Your task to perform on an android device: What's the news in Puerto Rico? Image 0: 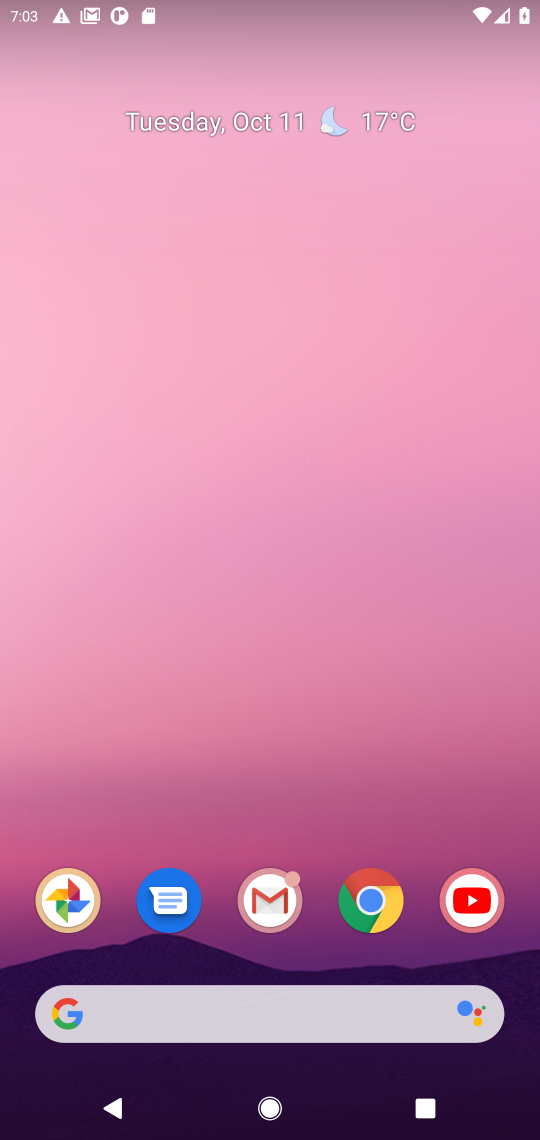
Step 0: click (359, 895)
Your task to perform on an android device: What's the news in Puerto Rico? Image 1: 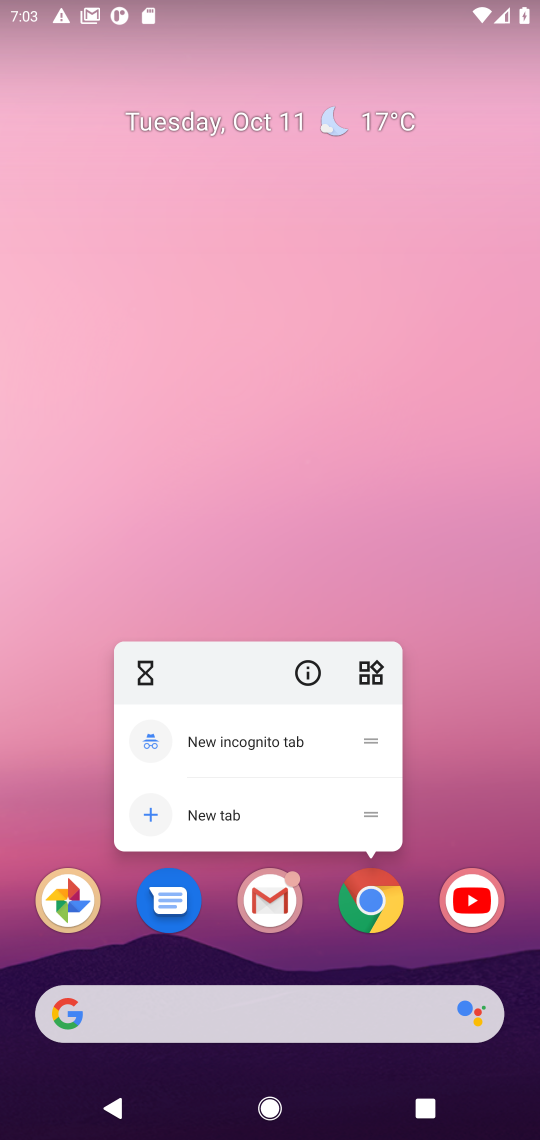
Step 1: click (371, 900)
Your task to perform on an android device: What's the news in Puerto Rico? Image 2: 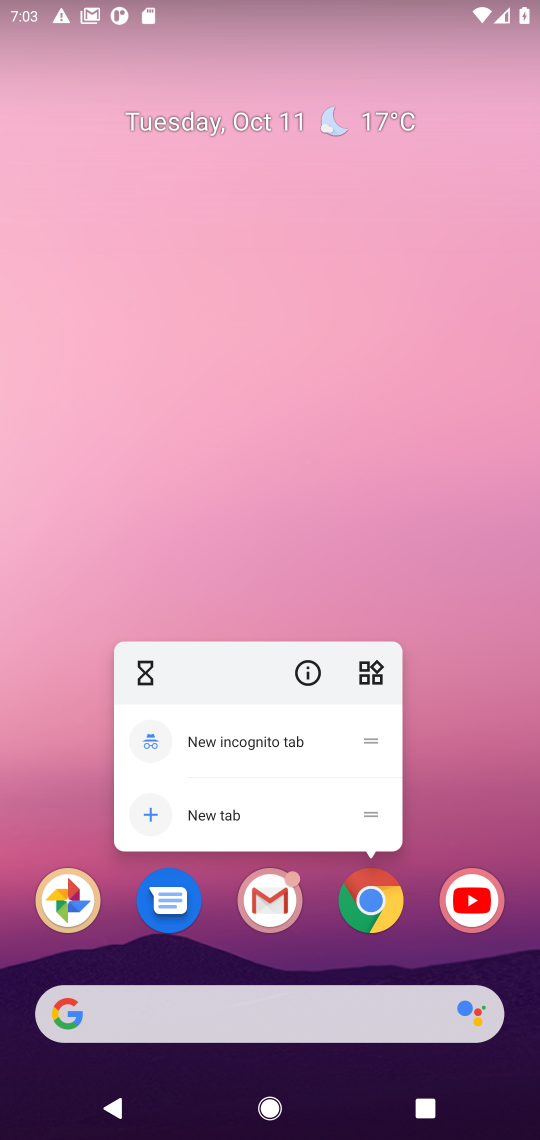
Step 2: click (371, 912)
Your task to perform on an android device: What's the news in Puerto Rico? Image 3: 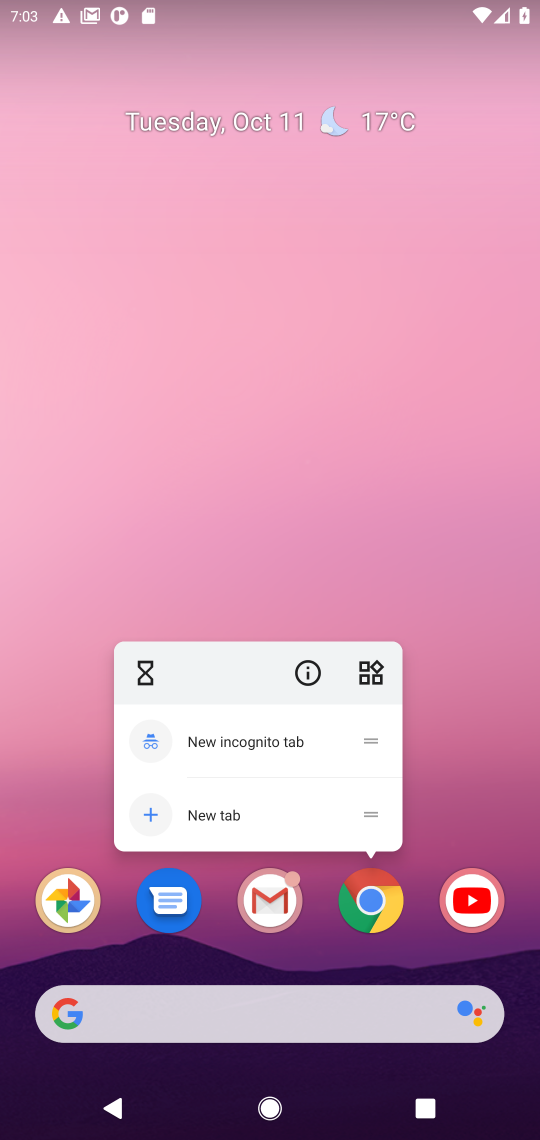
Step 3: click (370, 898)
Your task to perform on an android device: What's the news in Puerto Rico? Image 4: 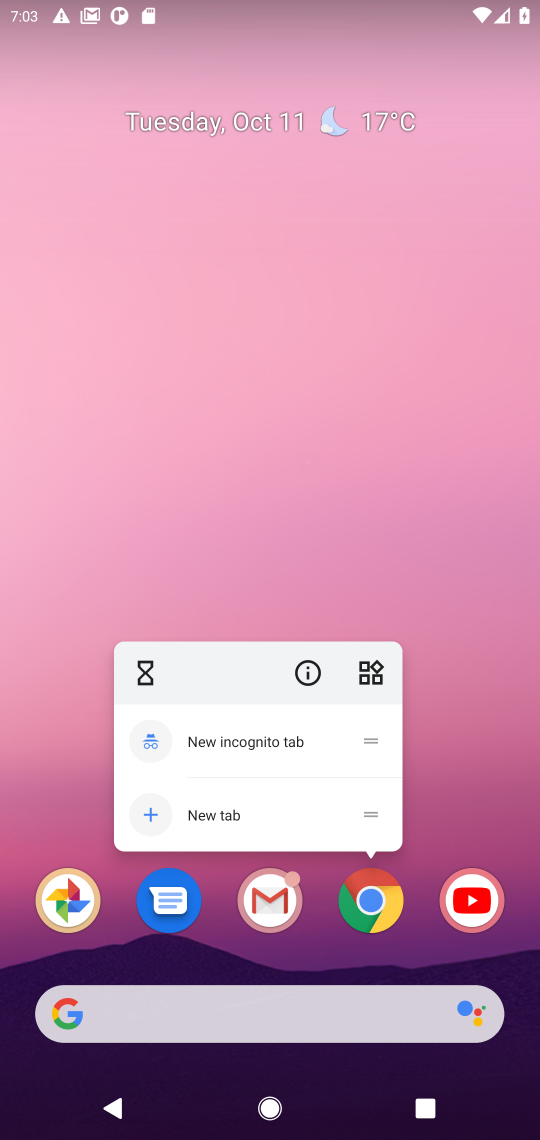
Step 4: click (369, 898)
Your task to perform on an android device: What's the news in Puerto Rico? Image 5: 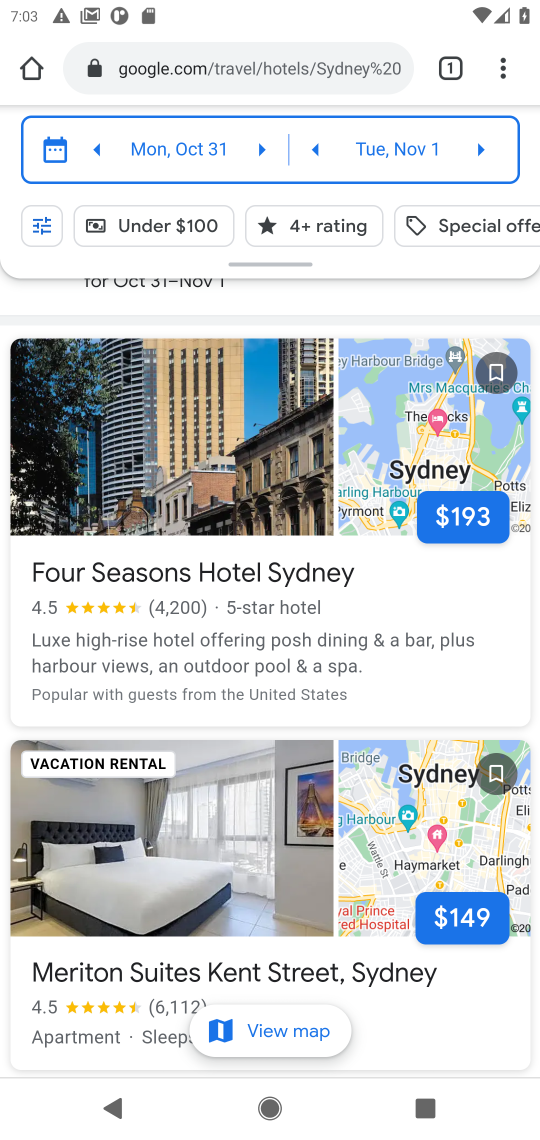
Step 5: click (247, 69)
Your task to perform on an android device: What's the news in Puerto Rico? Image 6: 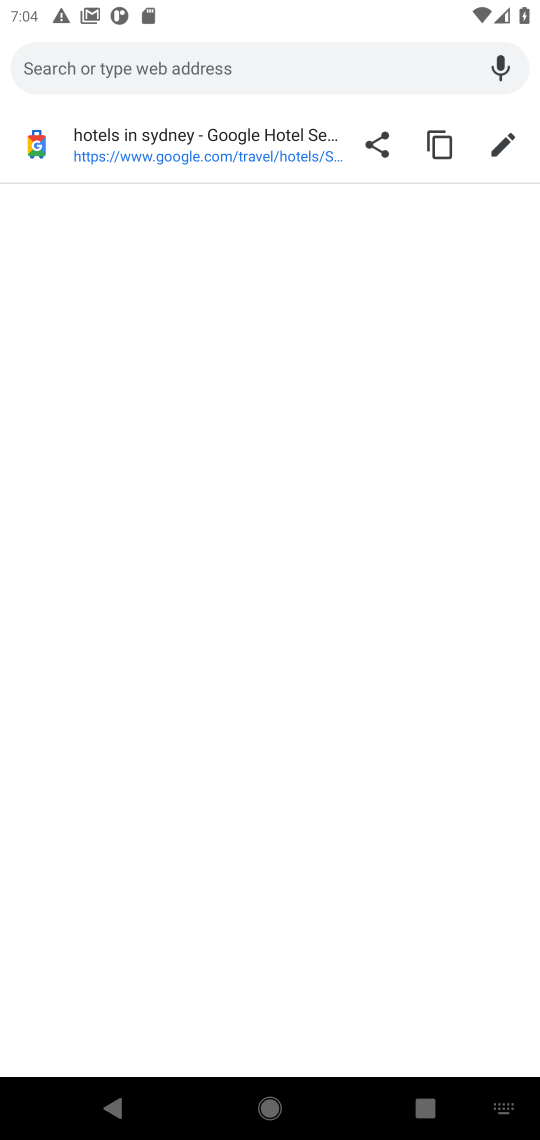
Step 6: type "news in Puerto Rico"
Your task to perform on an android device: What's the news in Puerto Rico? Image 7: 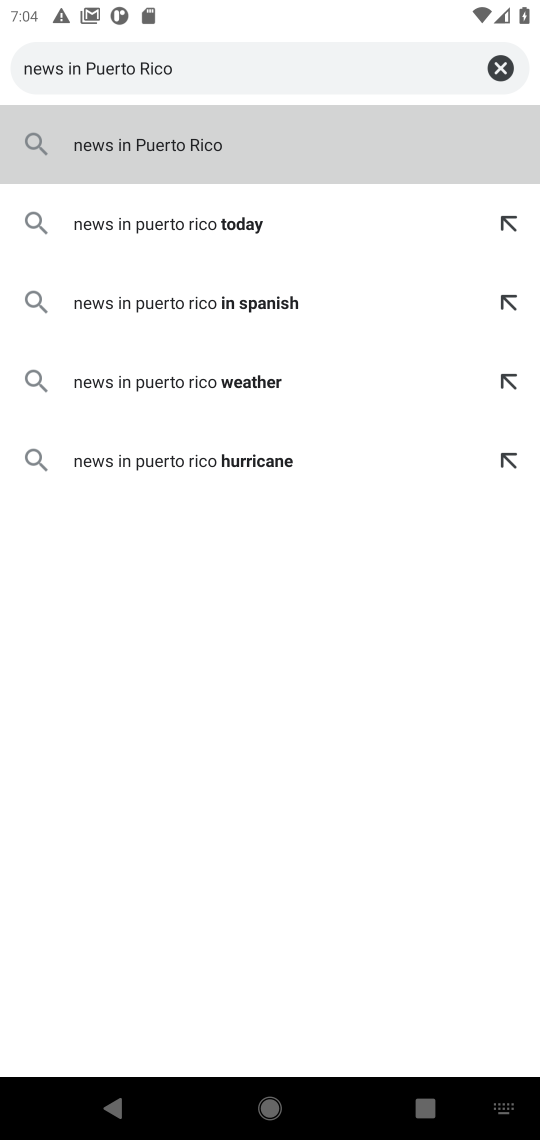
Step 7: press enter
Your task to perform on an android device: What's the news in Puerto Rico? Image 8: 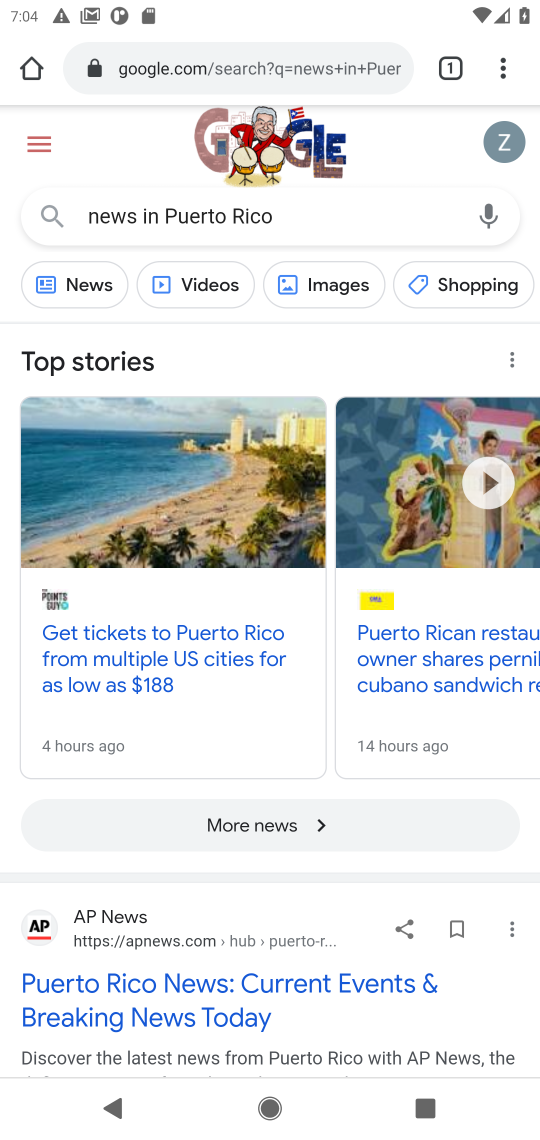
Step 8: click (84, 293)
Your task to perform on an android device: What's the news in Puerto Rico? Image 9: 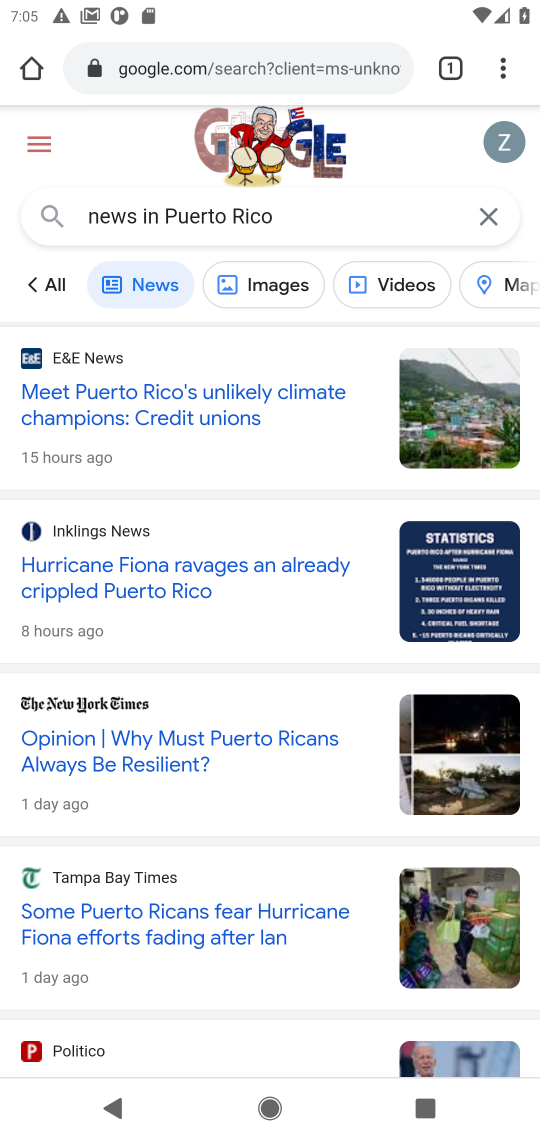
Step 9: task complete